Your task to perform on an android device: find photos in the google photos app Image 0: 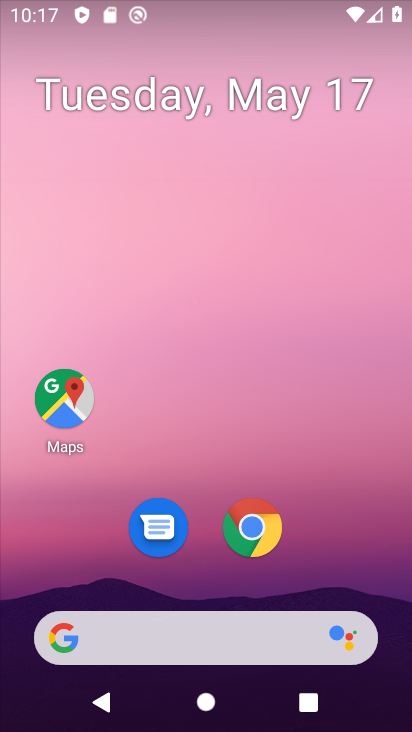
Step 0: drag from (92, 580) to (201, 128)
Your task to perform on an android device: find photos in the google photos app Image 1: 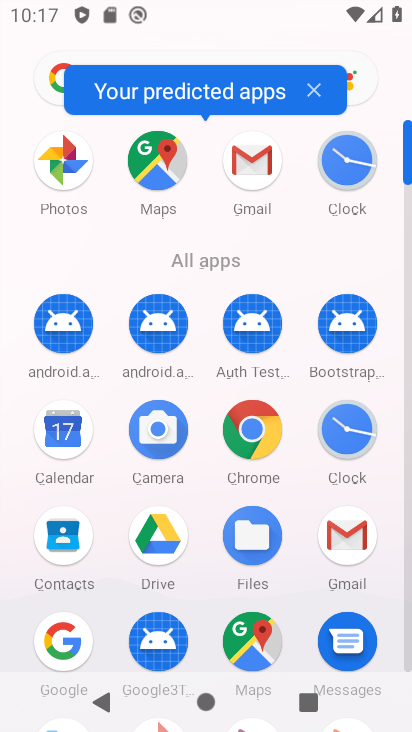
Step 1: drag from (180, 616) to (228, 436)
Your task to perform on an android device: find photos in the google photos app Image 2: 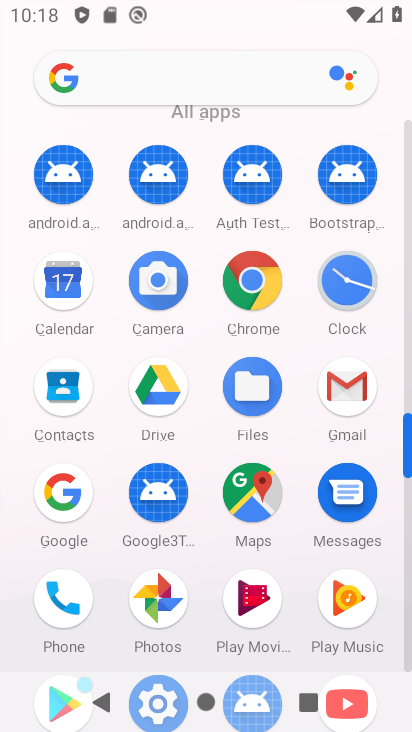
Step 2: click (159, 601)
Your task to perform on an android device: find photos in the google photos app Image 3: 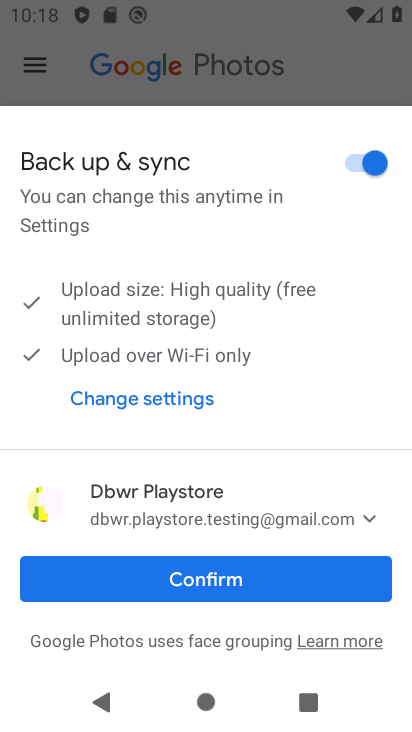
Step 3: click (190, 583)
Your task to perform on an android device: find photos in the google photos app Image 4: 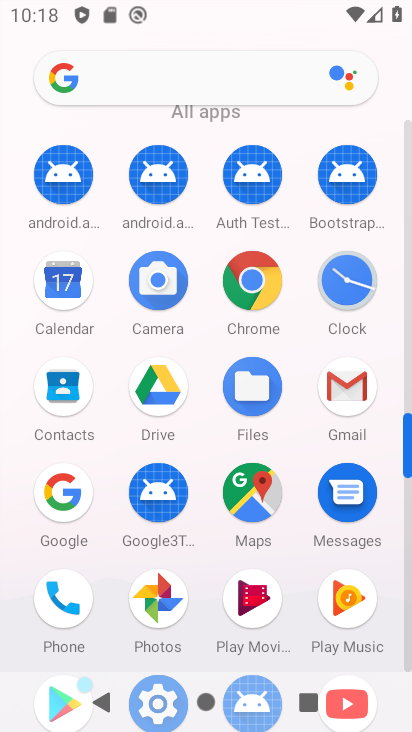
Step 4: click (174, 599)
Your task to perform on an android device: find photos in the google photos app Image 5: 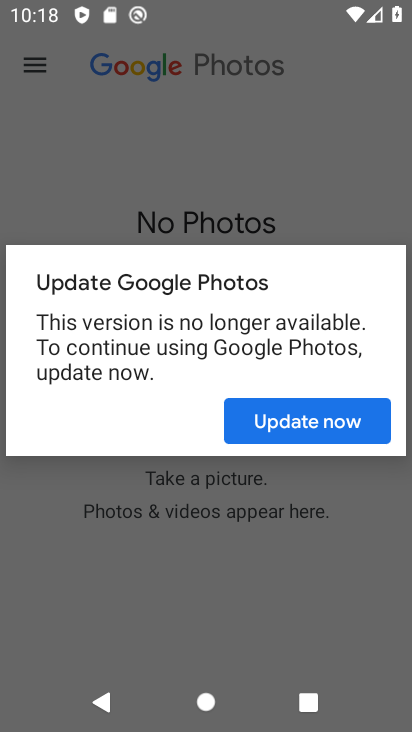
Step 5: click (325, 436)
Your task to perform on an android device: find photos in the google photos app Image 6: 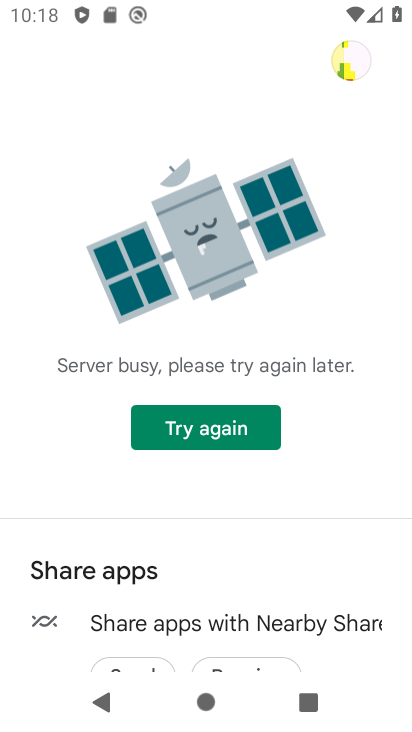
Step 6: task complete